Your task to perform on an android device: turn pop-ups off in chrome Image 0: 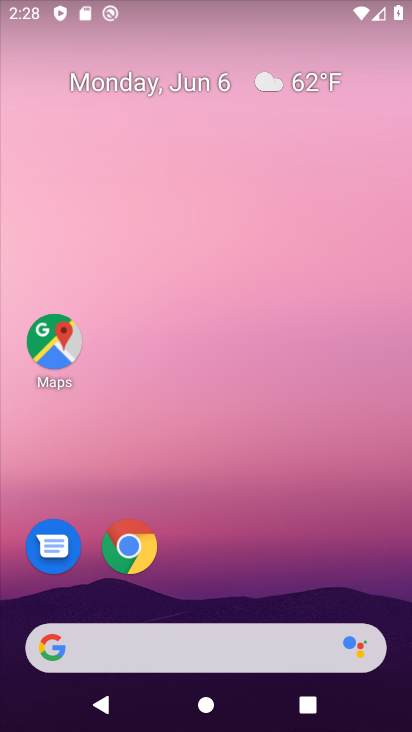
Step 0: click (118, 564)
Your task to perform on an android device: turn pop-ups off in chrome Image 1: 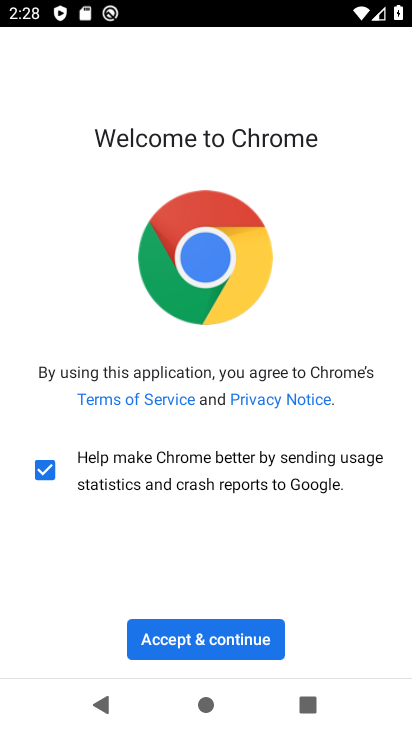
Step 1: click (213, 654)
Your task to perform on an android device: turn pop-ups off in chrome Image 2: 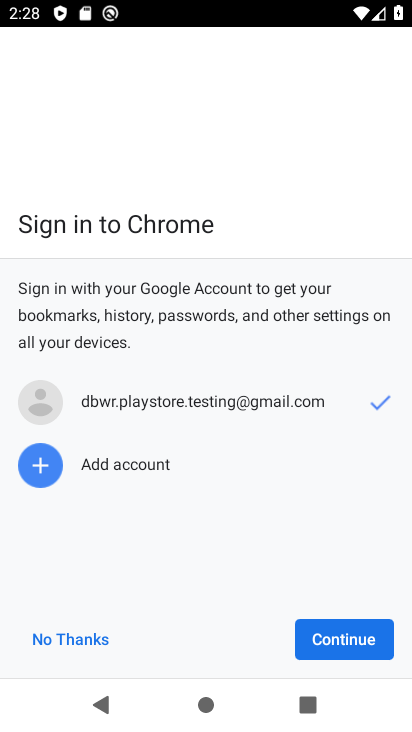
Step 2: click (306, 634)
Your task to perform on an android device: turn pop-ups off in chrome Image 3: 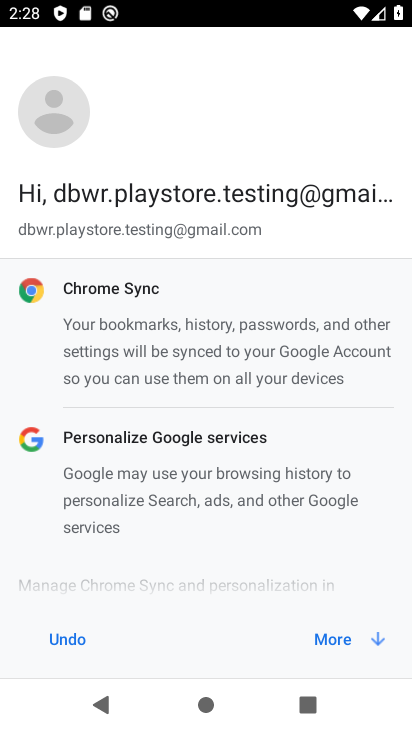
Step 3: click (306, 634)
Your task to perform on an android device: turn pop-ups off in chrome Image 4: 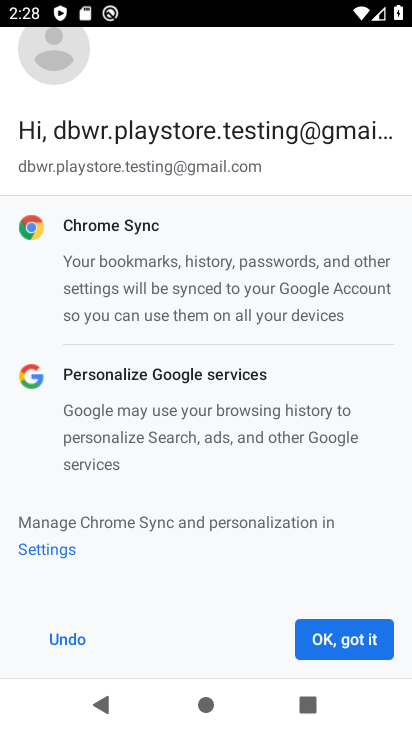
Step 4: click (313, 635)
Your task to perform on an android device: turn pop-ups off in chrome Image 5: 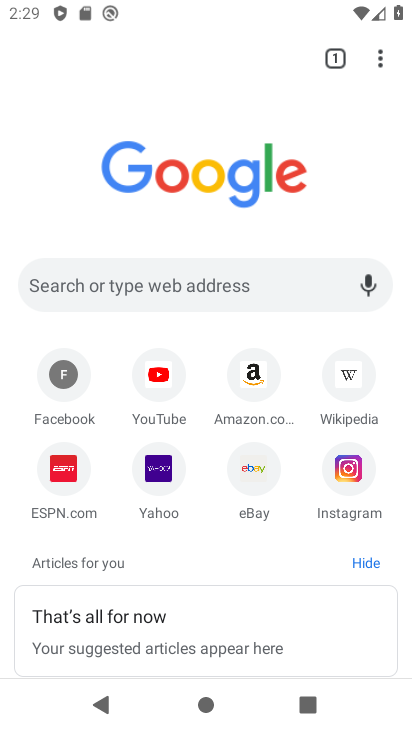
Step 5: click (378, 60)
Your task to perform on an android device: turn pop-ups off in chrome Image 6: 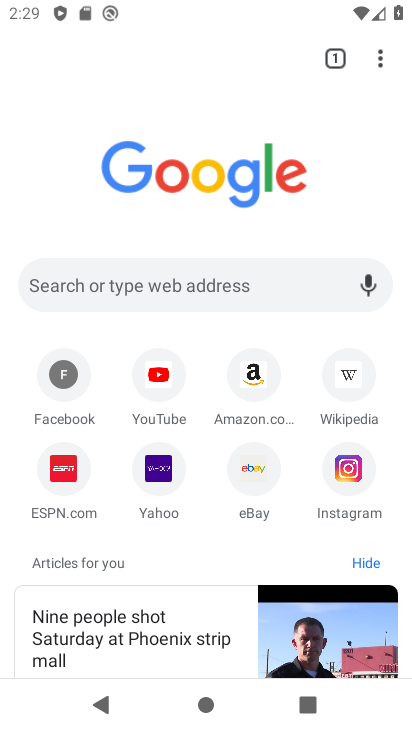
Step 6: drag from (375, 62) to (193, 485)
Your task to perform on an android device: turn pop-ups off in chrome Image 7: 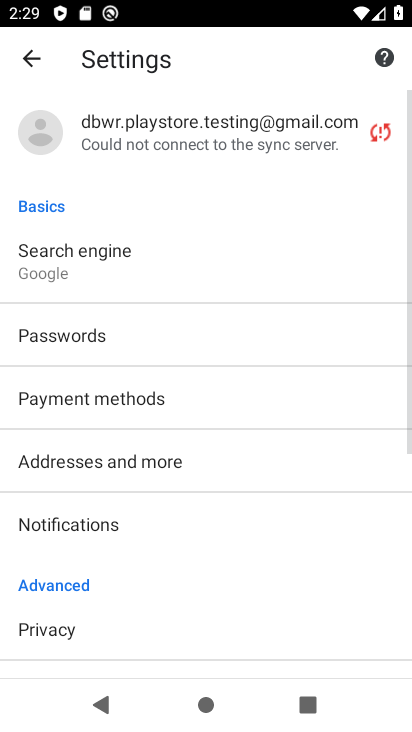
Step 7: drag from (243, 545) to (224, 208)
Your task to perform on an android device: turn pop-ups off in chrome Image 8: 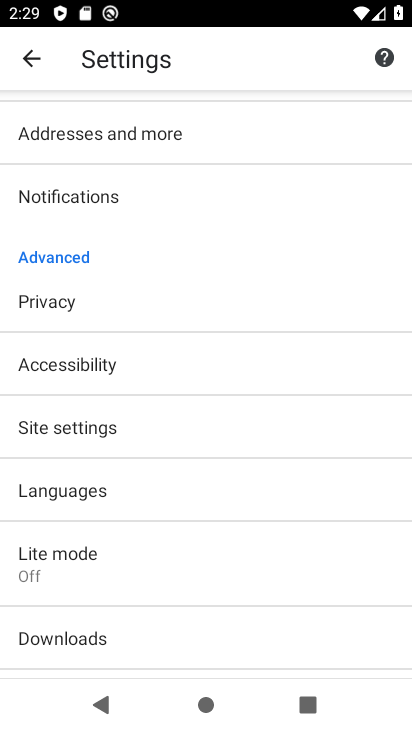
Step 8: click (139, 436)
Your task to perform on an android device: turn pop-ups off in chrome Image 9: 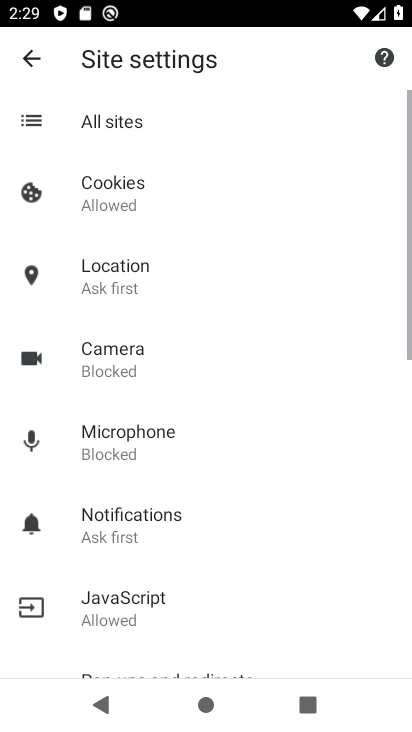
Step 9: drag from (215, 534) to (225, 243)
Your task to perform on an android device: turn pop-ups off in chrome Image 10: 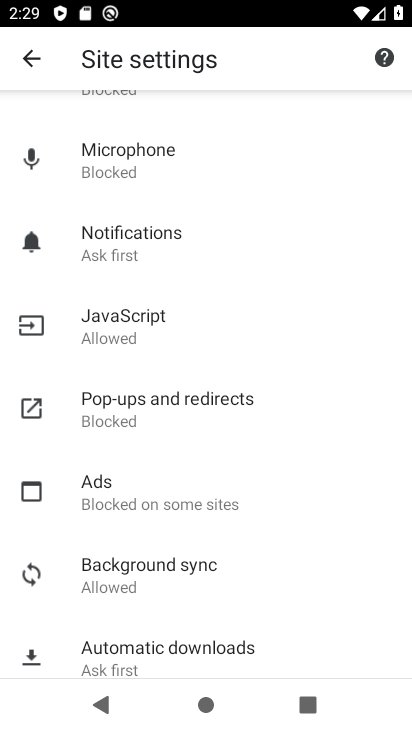
Step 10: click (181, 425)
Your task to perform on an android device: turn pop-ups off in chrome Image 11: 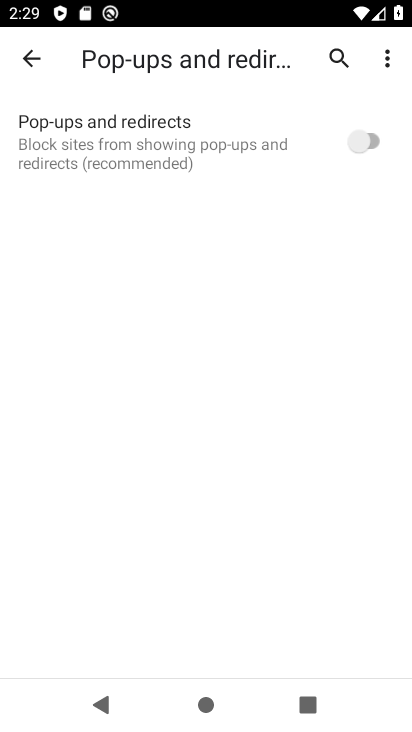
Step 11: task complete